Your task to perform on an android device: turn on notifications settings in the gmail app Image 0: 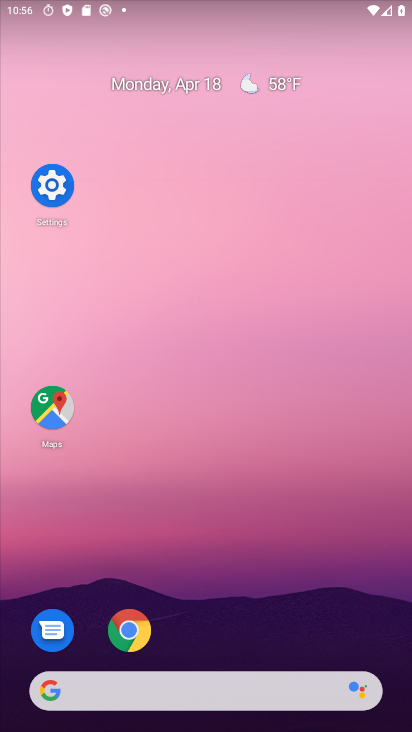
Step 0: drag from (270, 524) to (336, 174)
Your task to perform on an android device: turn on notifications settings in the gmail app Image 1: 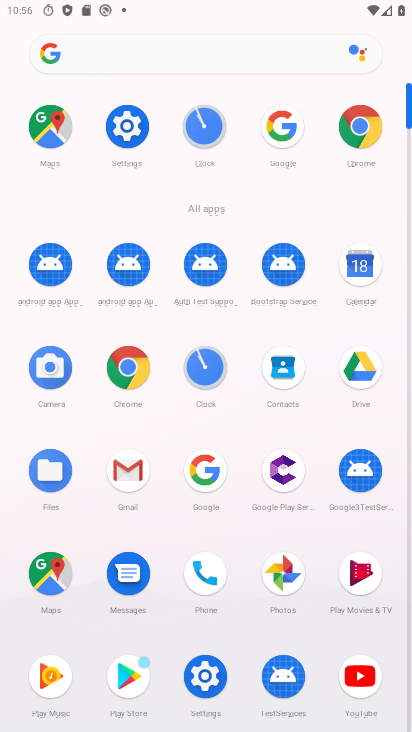
Step 1: click (131, 478)
Your task to perform on an android device: turn on notifications settings in the gmail app Image 2: 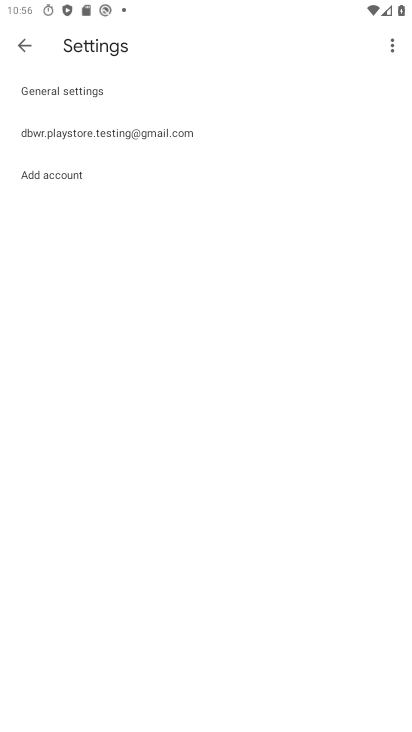
Step 2: click (100, 140)
Your task to perform on an android device: turn on notifications settings in the gmail app Image 3: 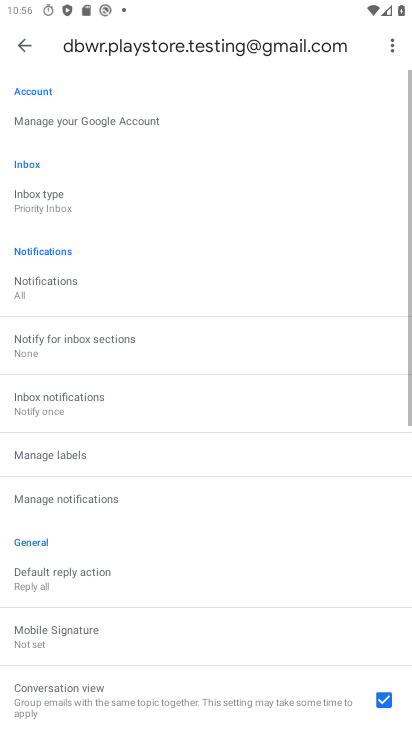
Step 3: click (104, 285)
Your task to perform on an android device: turn on notifications settings in the gmail app Image 4: 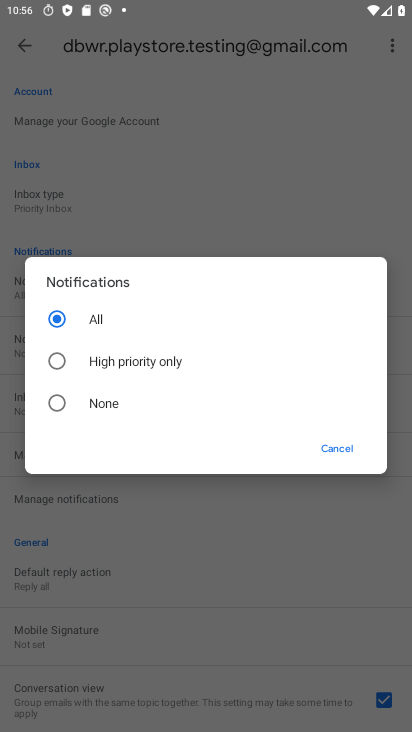
Step 4: task complete